Your task to perform on an android device: read, delete, or share a saved page in the chrome app Image 0: 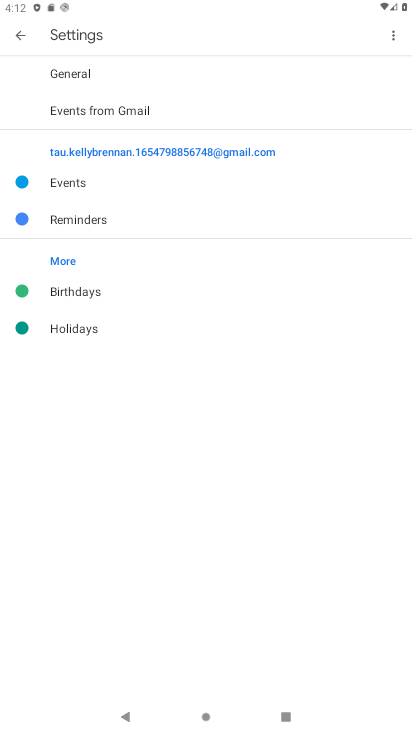
Step 0: press home button
Your task to perform on an android device: read, delete, or share a saved page in the chrome app Image 1: 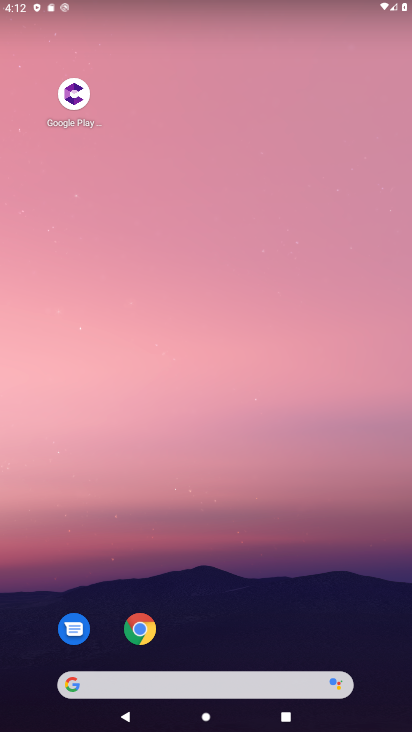
Step 1: click (140, 631)
Your task to perform on an android device: read, delete, or share a saved page in the chrome app Image 2: 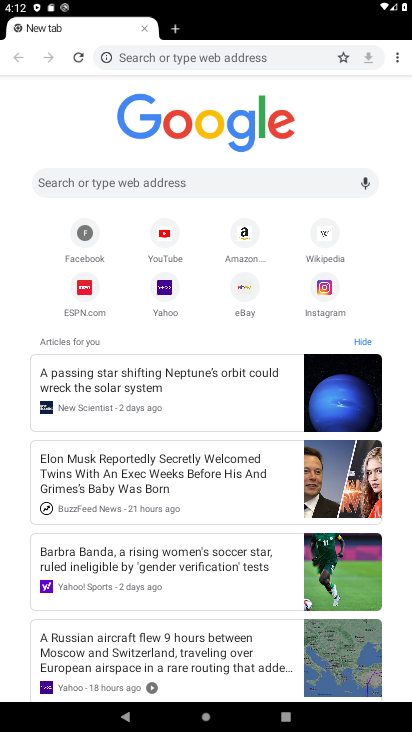
Step 2: click (396, 60)
Your task to perform on an android device: read, delete, or share a saved page in the chrome app Image 3: 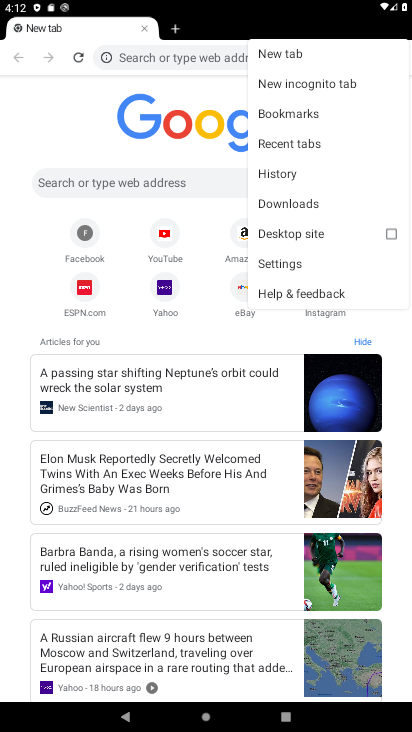
Step 3: click (289, 204)
Your task to perform on an android device: read, delete, or share a saved page in the chrome app Image 4: 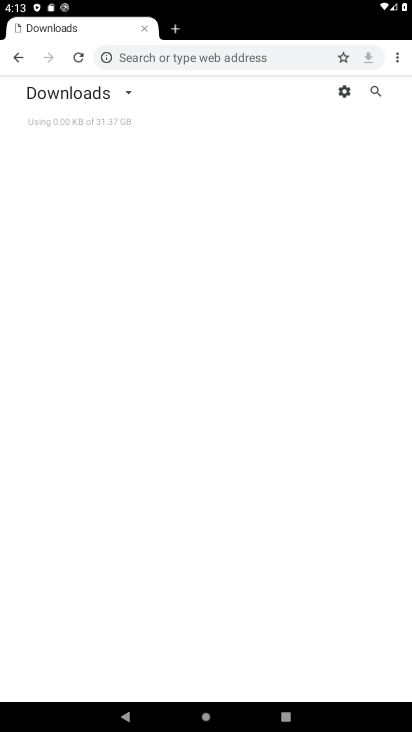
Step 4: task complete